Your task to perform on an android device: toggle sleep mode Image 0: 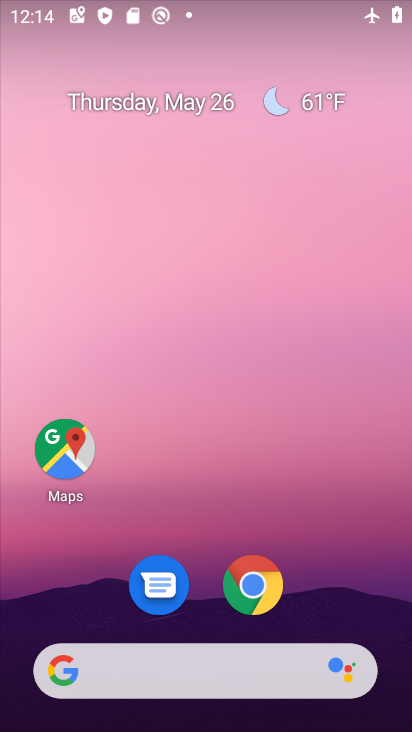
Step 0: drag from (221, 517) to (271, 48)
Your task to perform on an android device: toggle sleep mode Image 1: 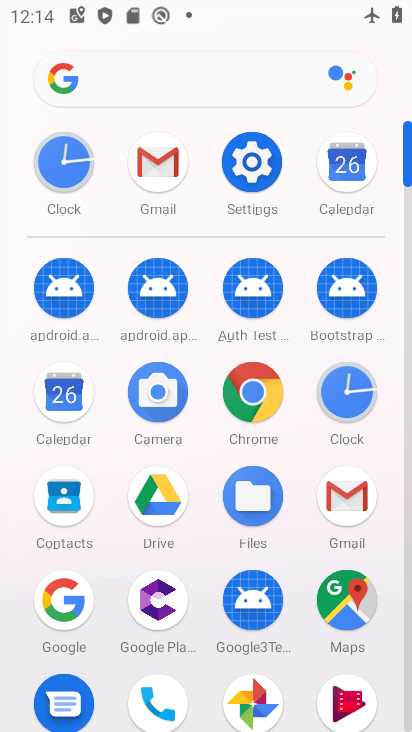
Step 1: click (259, 169)
Your task to perform on an android device: toggle sleep mode Image 2: 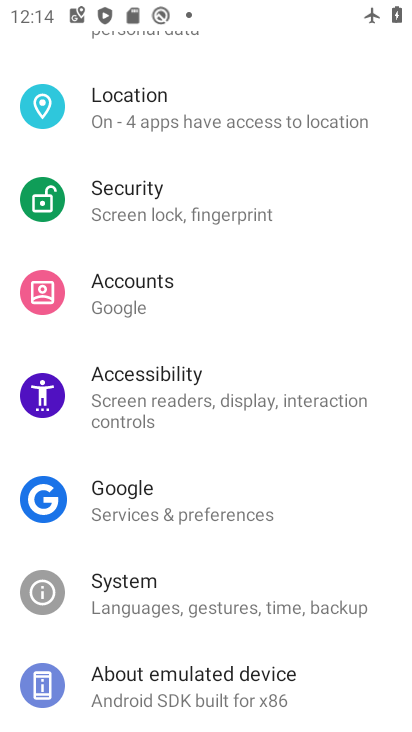
Step 2: drag from (250, 222) to (268, 602)
Your task to perform on an android device: toggle sleep mode Image 3: 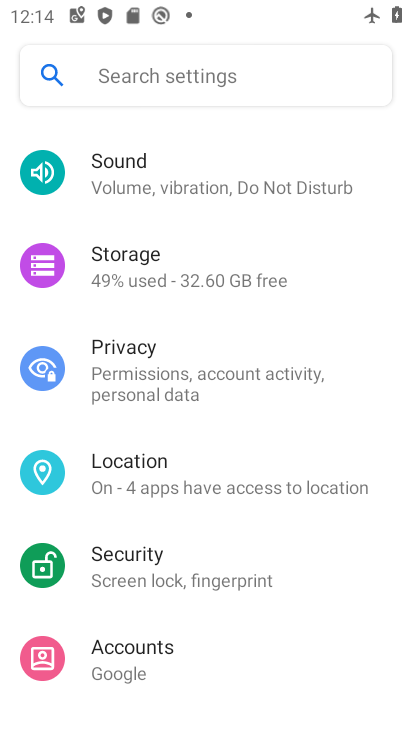
Step 3: drag from (220, 240) to (235, 515)
Your task to perform on an android device: toggle sleep mode Image 4: 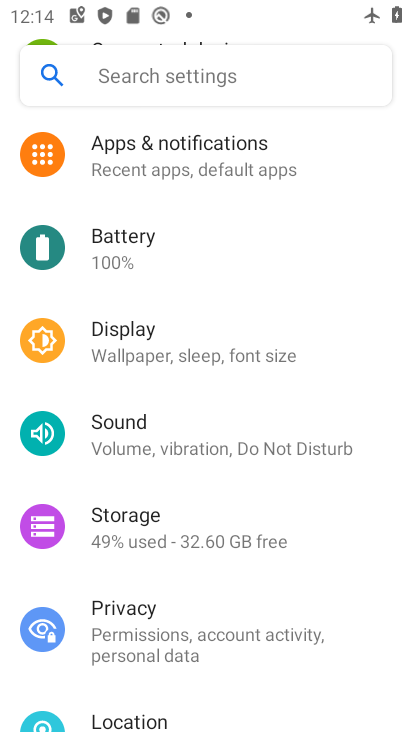
Step 4: click (207, 344)
Your task to perform on an android device: toggle sleep mode Image 5: 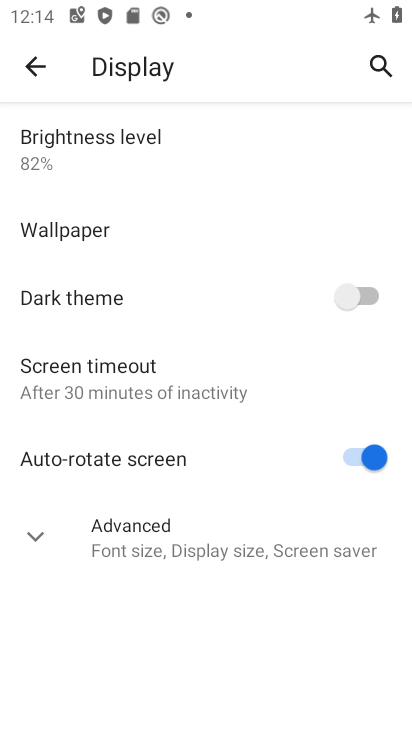
Step 5: click (39, 526)
Your task to perform on an android device: toggle sleep mode Image 6: 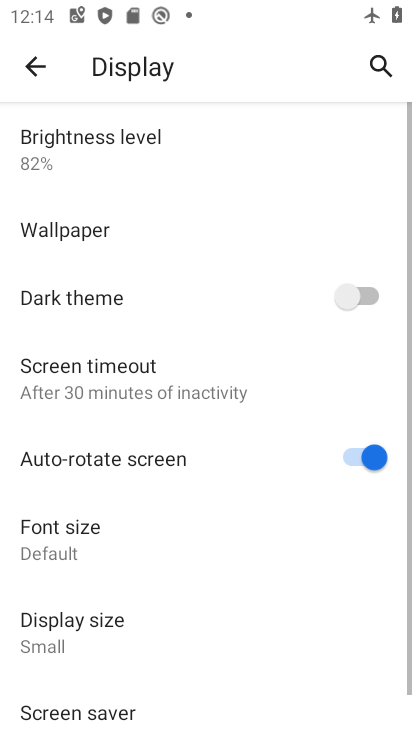
Step 6: task complete